Your task to perform on an android device: Search for "macbook pro 15 inch" on walmart, select the first entry, and add it to the cart. Image 0: 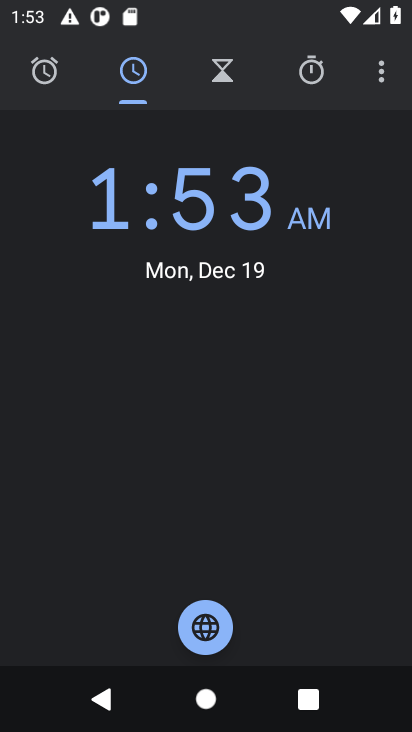
Step 0: press home button
Your task to perform on an android device: Search for "macbook pro 15 inch" on walmart, select the first entry, and add it to the cart. Image 1: 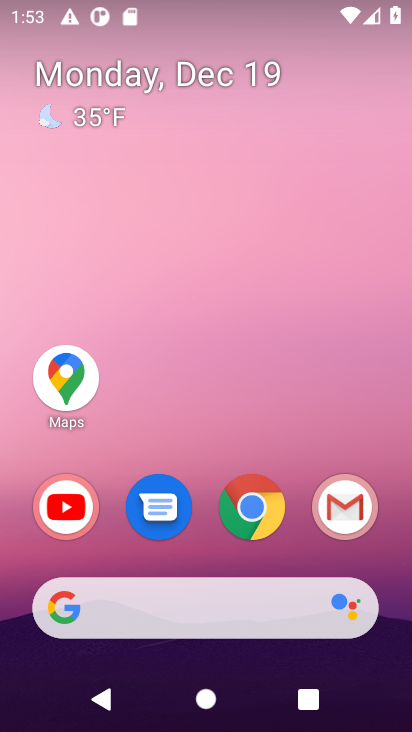
Step 1: click (258, 514)
Your task to perform on an android device: Search for "macbook pro 15 inch" on walmart, select the first entry, and add it to the cart. Image 2: 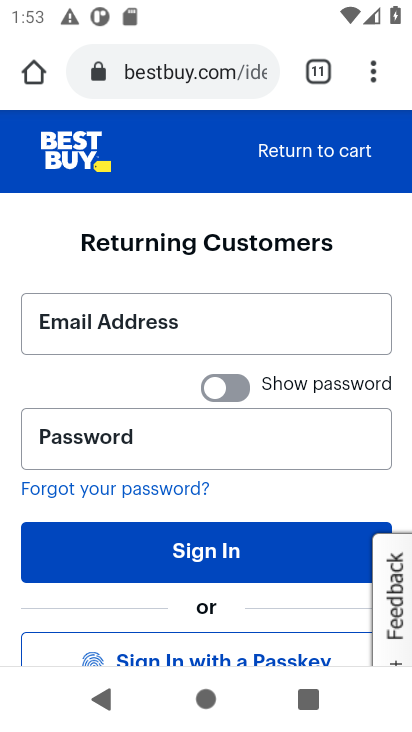
Step 2: click (171, 74)
Your task to perform on an android device: Search for "macbook pro 15 inch" on walmart, select the first entry, and add it to the cart. Image 3: 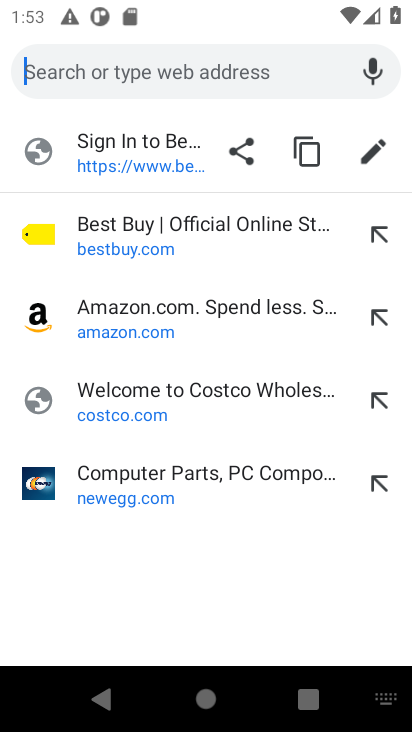
Step 3: type "walmart.com"
Your task to perform on an android device: Search for "macbook pro 15 inch" on walmart, select the first entry, and add it to the cart. Image 4: 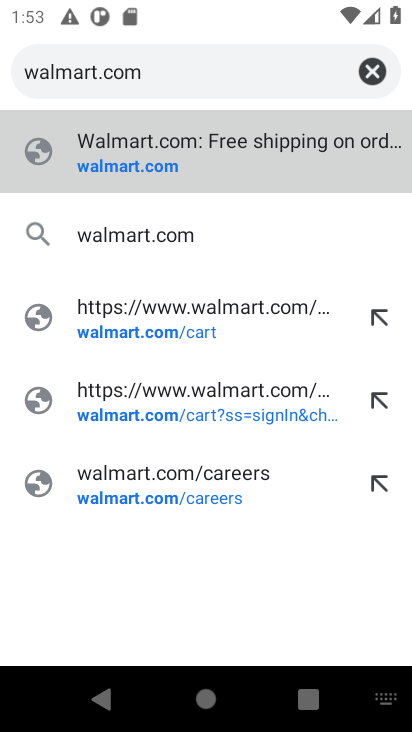
Step 4: click (141, 172)
Your task to perform on an android device: Search for "macbook pro 15 inch" on walmart, select the first entry, and add it to the cart. Image 5: 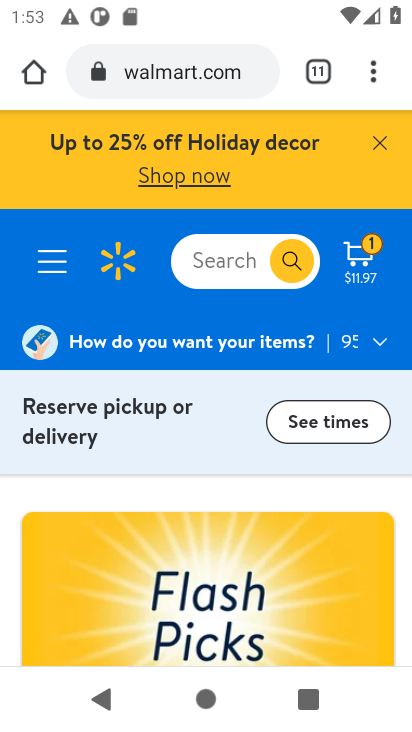
Step 5: click (210, 256)
Your task to perform on an android device: Search for "macbook pro 15 inch" on walmart, select the first entry, and add it to the cart. Image 6: 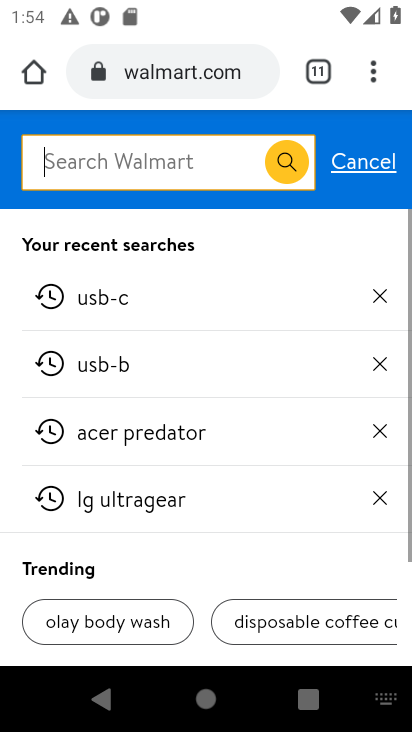
Step 6: type "macbook pro 15 inch"
Your task to perform on an android device: Search for "macbook pro 15 inch" on walmart, select the first entry, and add it to the cart. Image 7: 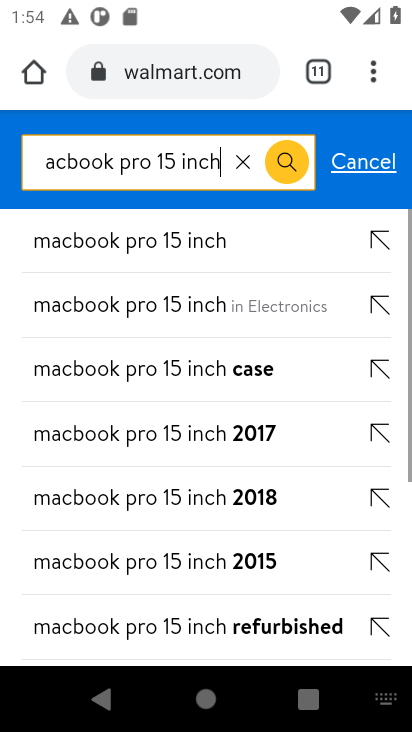
Step 7: click (111, 249)
Your task to perform on an android device: Search for "macbook pro 15 inch" on walmart, select the first entry, and add it to the cart. Image 8: 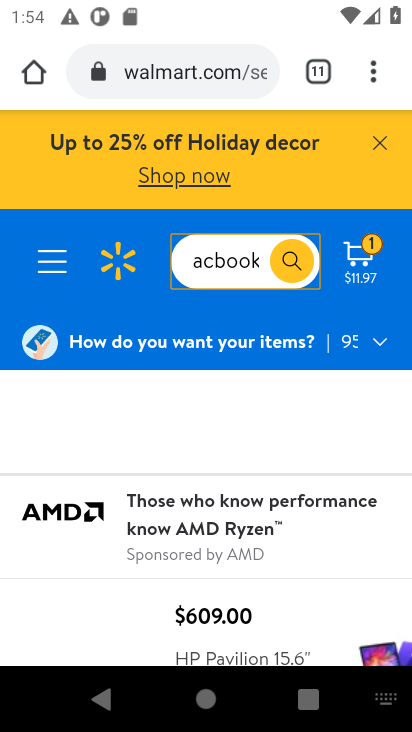
Step 8: drag from (183, 507) to (196, 142)
Your task to perform on an android device: Search for "macbook pro 15 inch" on walmart, select the first entry, and add it to the cart. Image 9: 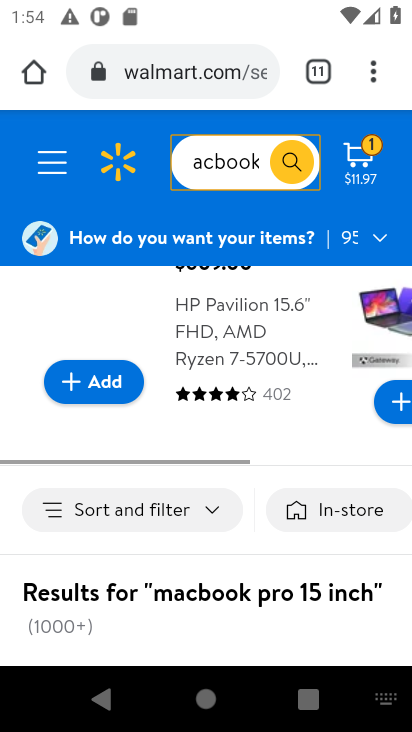
Step 9: drag from (183, 444) to (176, 138)
Your task to perform on an android device: Search for "macbook pro 15 inch" on walmart, select the first entry, and add it to the cart. Image 10: 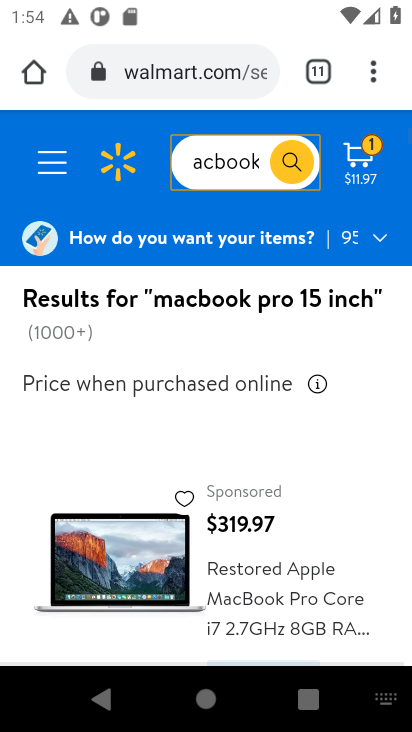
Step 10: drag from (145, 476) to (158, 238)
Your task to perform on an android device: Search for "macbook pro 15 inch" on walmart, select the first entry, and add it to the cart. Image 11: 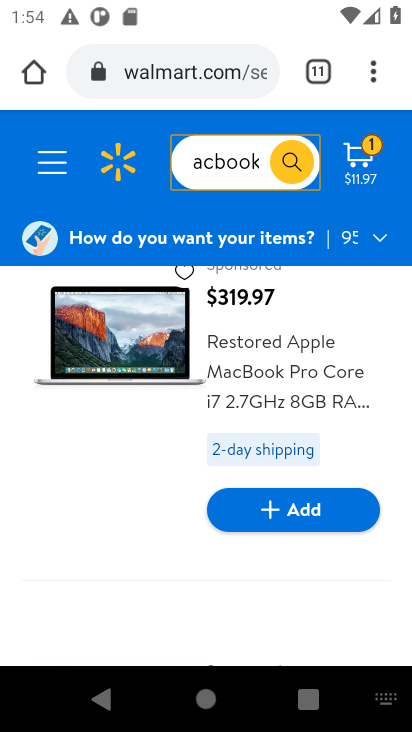
Step 11: click (267, 365)
Your task to perform on an android device: Search for "macbook pro 15 inch" on walmart, select the first entry, and add it to the cart. Image 12: 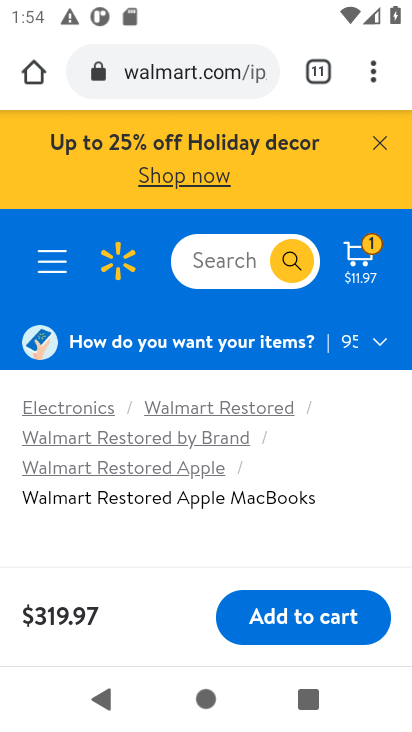
Step 12: drag from (223, 419) to (228, 218)
Your task to perform on an android device: Search for "macbook pro 15 inch" on walmart, select the first entry, and add it to the cart. Image 13: 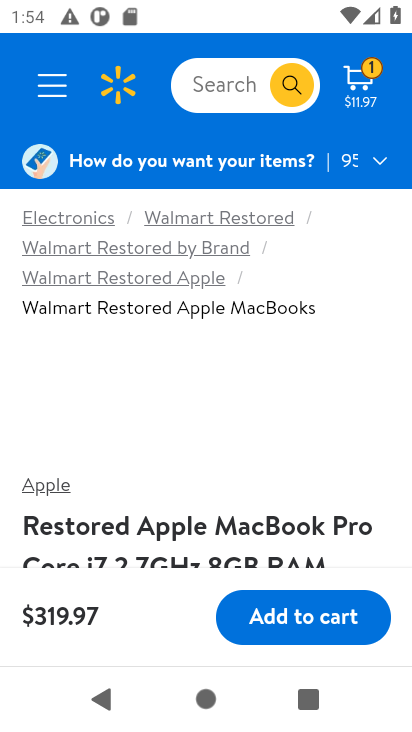
Step 13: drag from (186, 374) to (201, 137)
Your task to perform on an android device: Search for "macbook pro 15 inch" on walmart, select the first entry, and add it to the cart. Image 14: 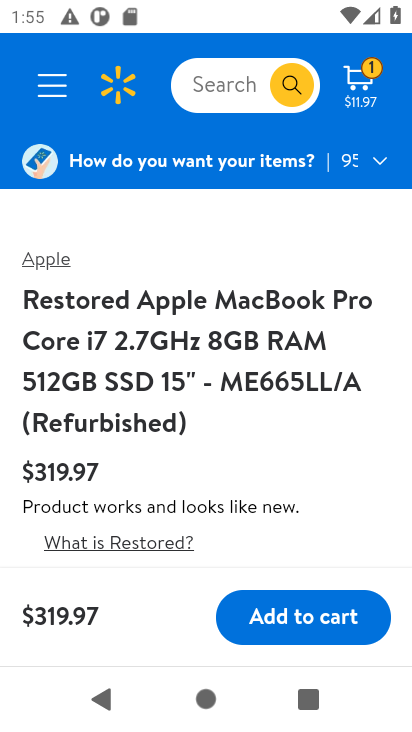
Step 14: click (315, 628)
Your task to perform on an android device: Search for "macbook pro 15 inch" on walmart, select the first entry, and add it to the cart. Image 15: 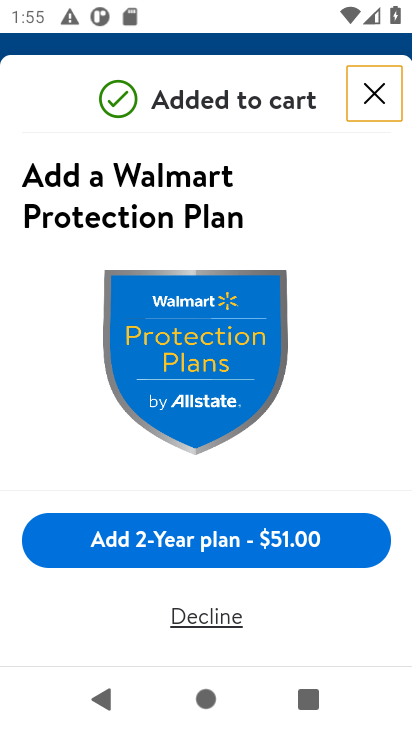
Step 15: task complete